Your task to perform on an android device: delete location history Image 0: 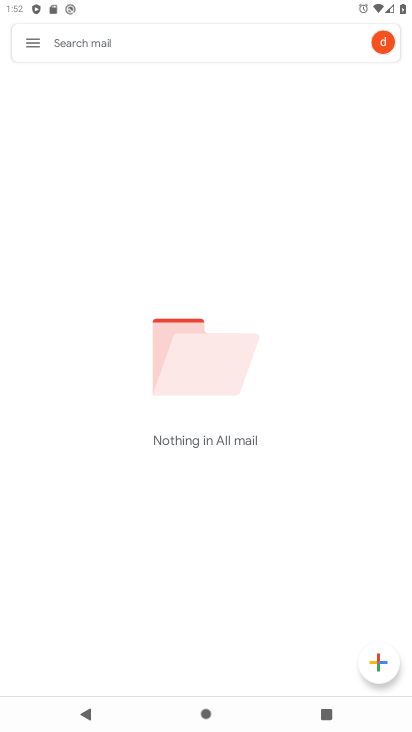
Step 0: press home button
Your task to perform on an android device: delete location history Image 1: 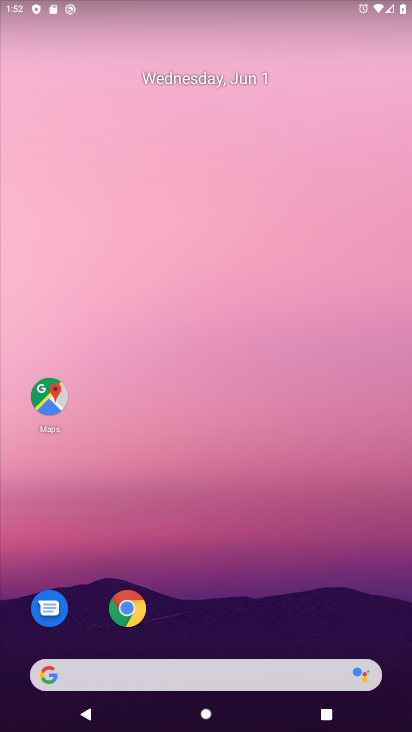
Step 1: drag from (160, 627) to (267, 145)
Your task to perform on an android device: delete location history Image 2: 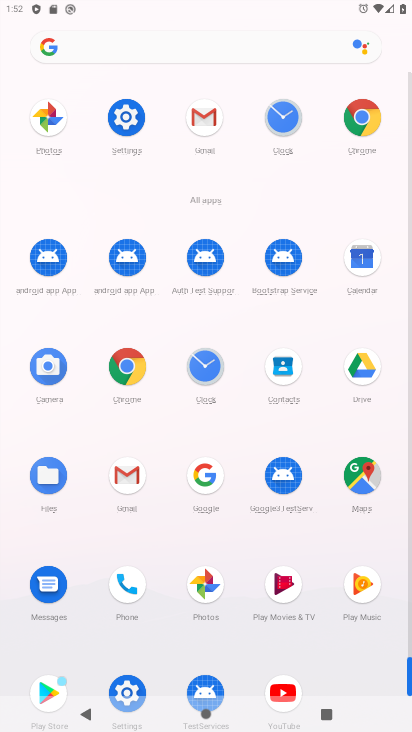
Step 2: drag from (117, 696) to (189, 508)
Your task to perform on an android device: delete location history Image 3: 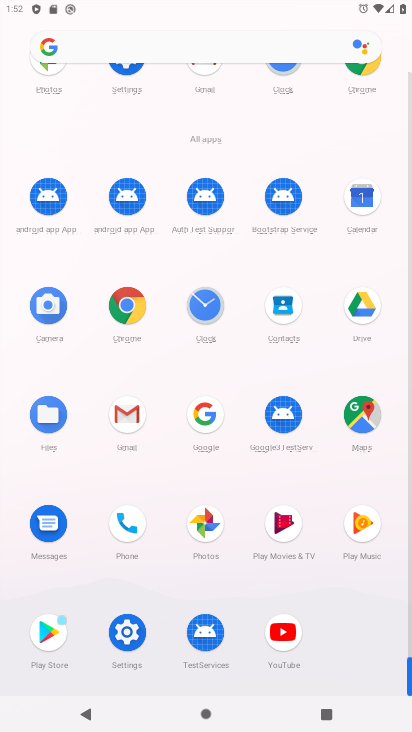
Step 3: click (123, 645)
Your task to perform on an android device: delete location history Image 4: 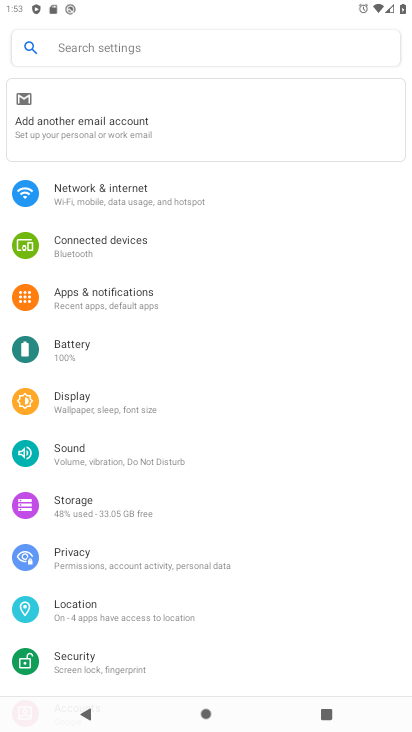
Step 4: drag from (121, 616) to (193, 370)
Your task to perform on an android device: delete location history Image 5: 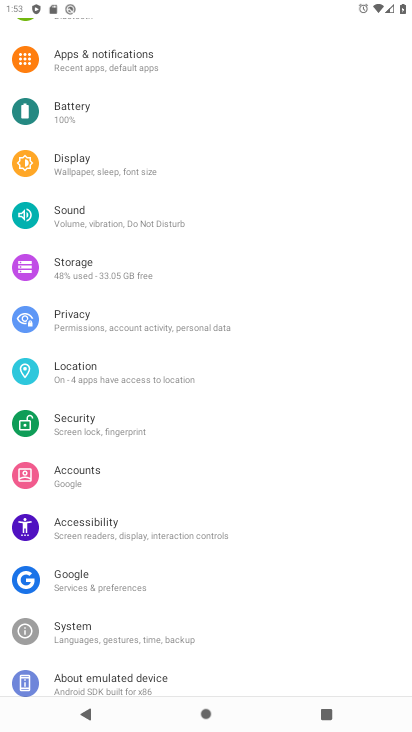
Step 5: click (125, 367)
Your task to perform on an android device: delete location history Image 6: 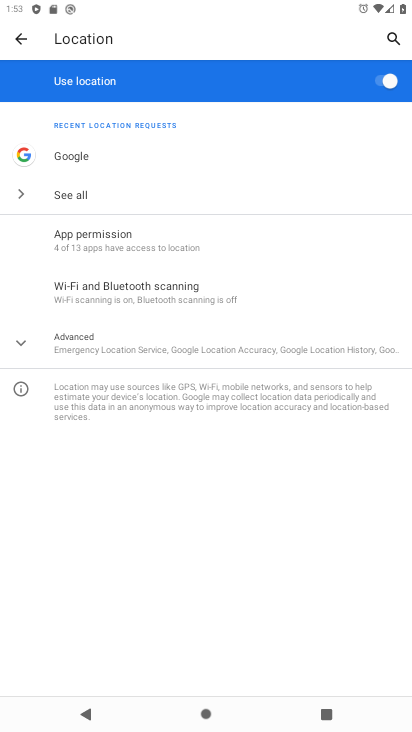
Step 6: click (188, 349)
Your task to perform on an android device: delete location history Image 7: 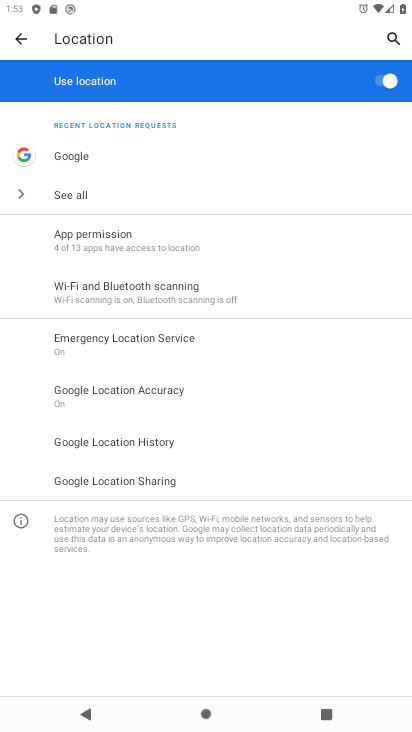
Step 7: click (193, 447)
Your task to perform on an android device: delete location history Image 8: 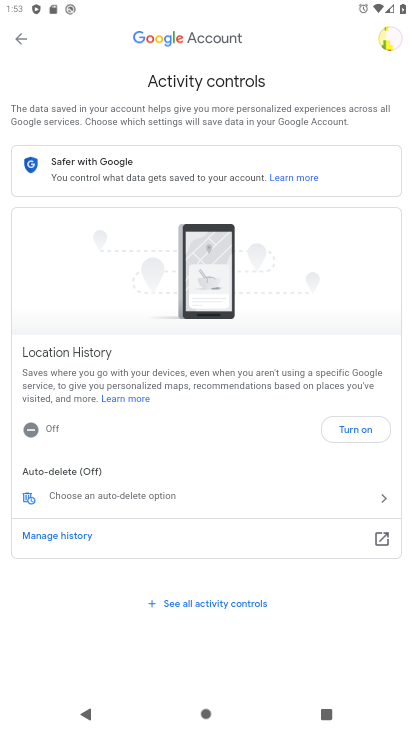
Step 8: click (80, 542)
Your task to perform on an android device: delete location history Image 9: 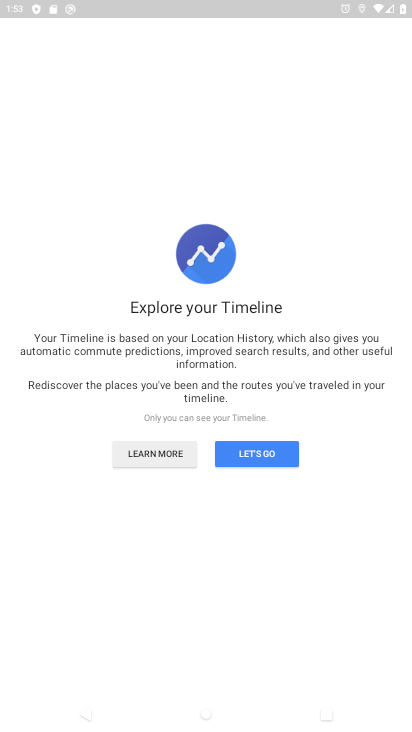
Step 9: click (269, 468)
Your task to perform on an android device: delete location history Image 10: 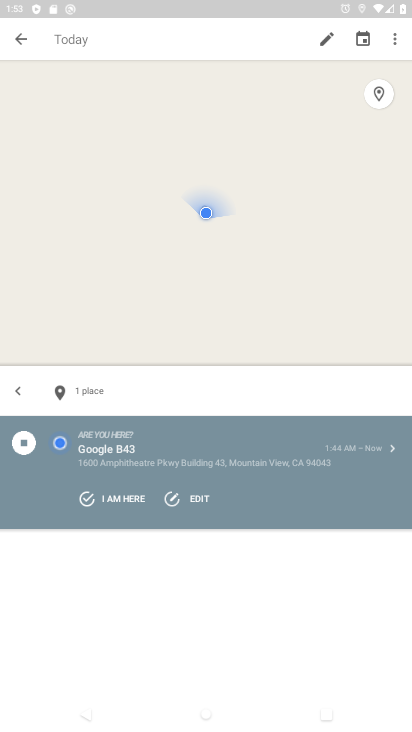
Step 10: click (403, 45)
Your task to perform on an android device: delete location history Image 11: 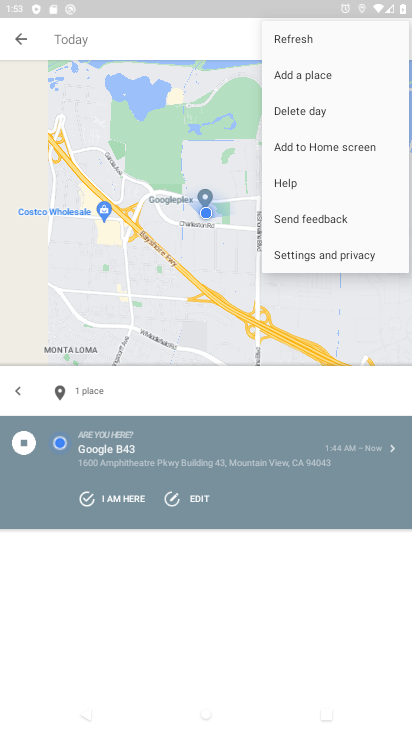
Step 11: click (329, 126)
Your task to perform on an android device: delete location history Image 12: 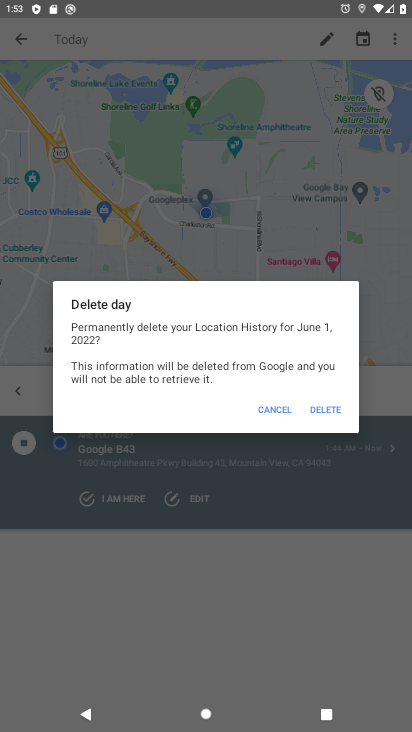
Step 12: click (322, 418)
Your task to perform on an android device: delete location history Image 13: 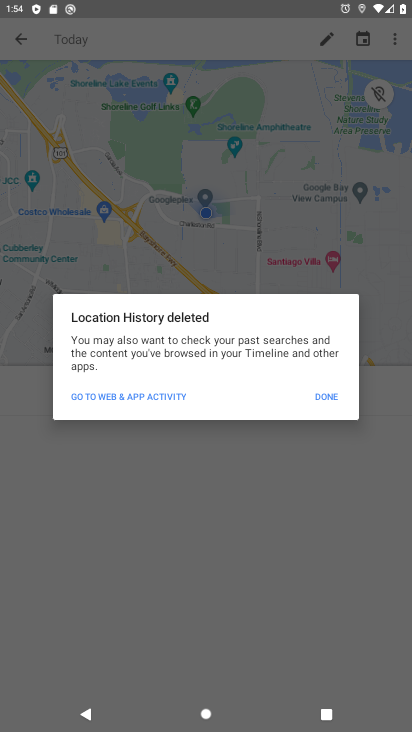
Step 13: click (321, 400)
Your task to perform on an android device: delete location history Image 14: 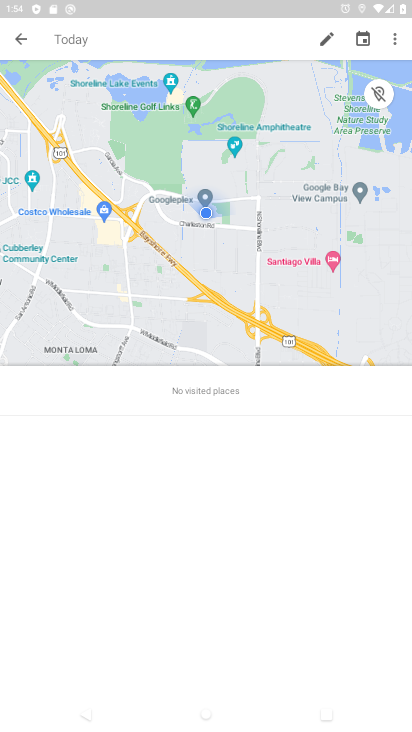
Step 14: task complete